Your task to perform on an android device: Clear all items from cart on bestbuy. Search for "razer thresher" on bestbuy, select the first entry, and add it to the cart. Image 0: 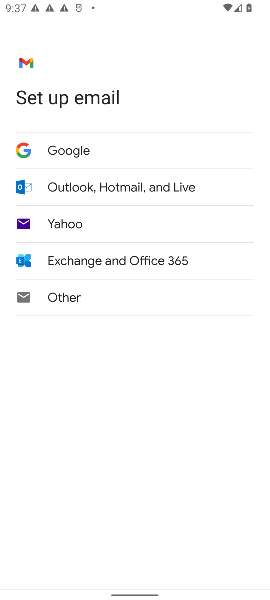
Step 0: press home button
Your task to perform on an android device: Clear all items from cart on bestbuy. Search for "razer thresher" on bestbuy, select the first entry, and add it to the cart. Image 1: 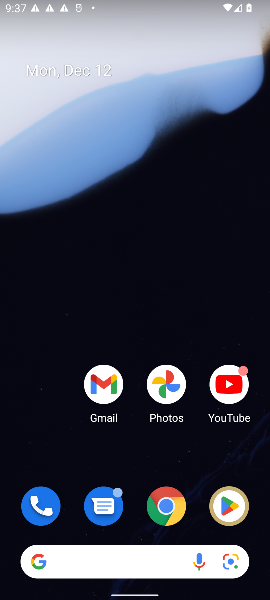
Step 1: click (144, 570)
Your task to perform on an android device: Clear all items from cart on bestbuy. Search for "razer thresher" on bestbuy, select the first entry, and add it to the cart. Image 2: 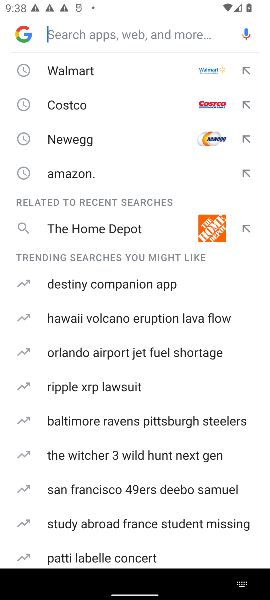
Step 2: type "bestbuy"
Your task to perform on an android device: Clear all items from cart on bestbuy. Search for "razer thresher" on bestbuy, select the first entry, and add it to the cart. Image 3: 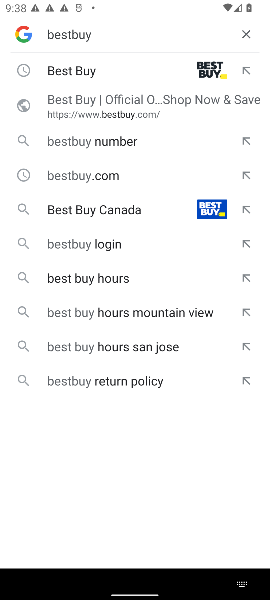
Step 3: click (55, 78)
Your task to perform on an android device: Clear all items from cart on bestbuy. Search for "razer thresher" on bestbuy, select the first entry, and add it to the cart. Image 4: 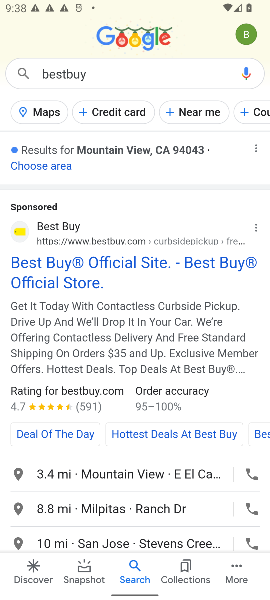
Step 4: click (96, 260)
Your task to perform on an android device: Clear all items from cart on bestbuy. Search for "razer thresher" on bestbuy, select the first entry, and add it to the cart. Image 5: 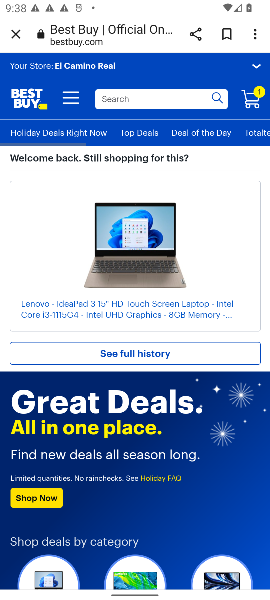
Step 5: click (185, 94)
Your task to perform on an android device: Clear all items from cart on bestbuy. Search for "razer thresher" on bestbuy, select the first entry, and add it to the cart. Image 6: 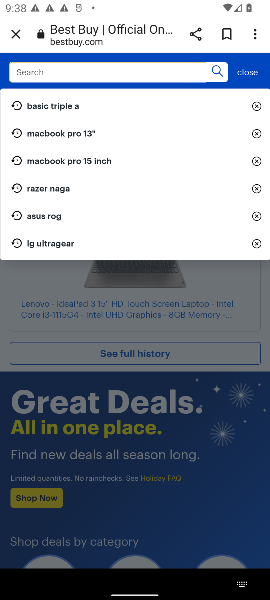
Step 6: type "razer thresher"
Your task to perform on an android device: Clear all items from cart on bestbuy. Search for "razer thresher" on bestbuy, select the first entry, and add it to the cart. Image 7: 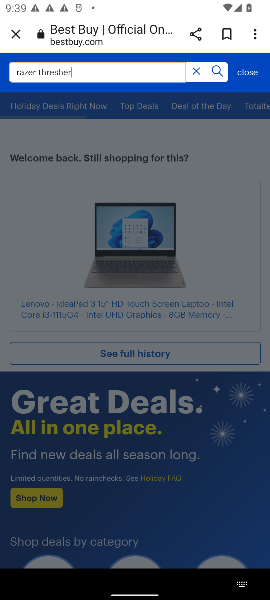
Step 7: click (222, 79)
Your task to perform on an android device: Clear all items from cart on bestbuy. Search for "razer thresher" on bestbuy, select the first entry, and add it to the cart. Image 8: 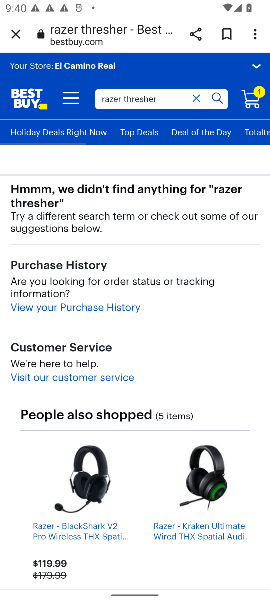
Step 8: click (243, 112)
Your task to perform on an android device: Clear all items from cart on bestbuy. Search for "razer thresher" on bestbuy, select the first entry, and add it to the cart. Image 9: 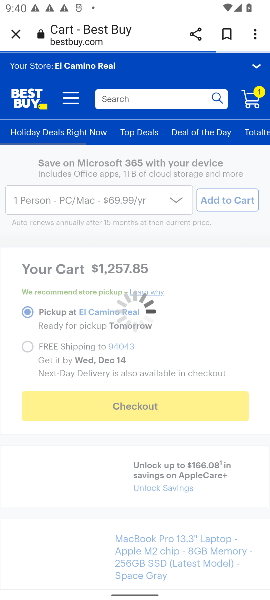
Step 9: task complete